Your task to perform on an android device: Go to notification settings Image 0: 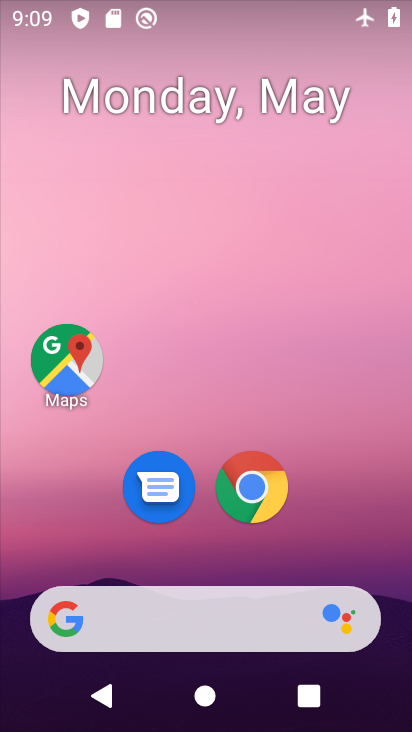
Step 0: drag from (307, 569) to (321, 243)
Your task to perform on an android device: Go to notification settings Image 1: 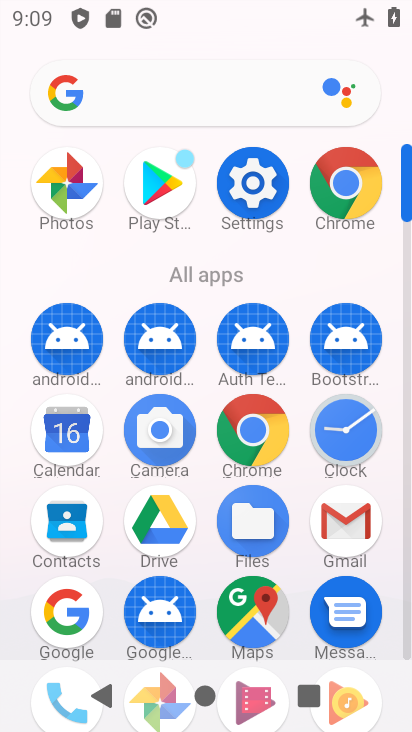
Step 1: click (262, 181)
Your task to perform on an android device: Go to notification settings Image 2: 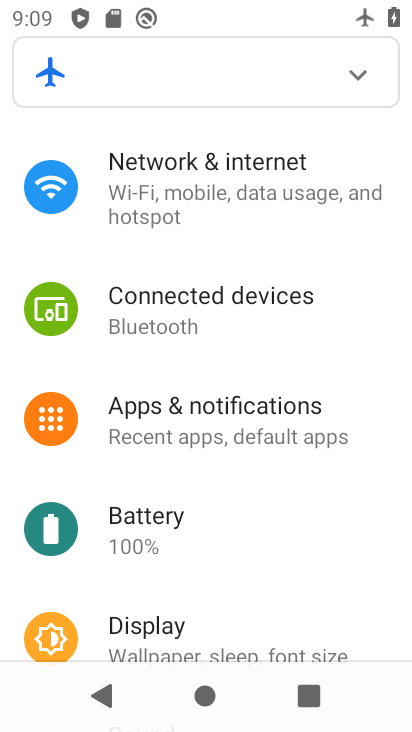
Step 2: drag from (220, 527) to (255, 542)
Your task to perform on an android device: Go to notification settings Image 3: 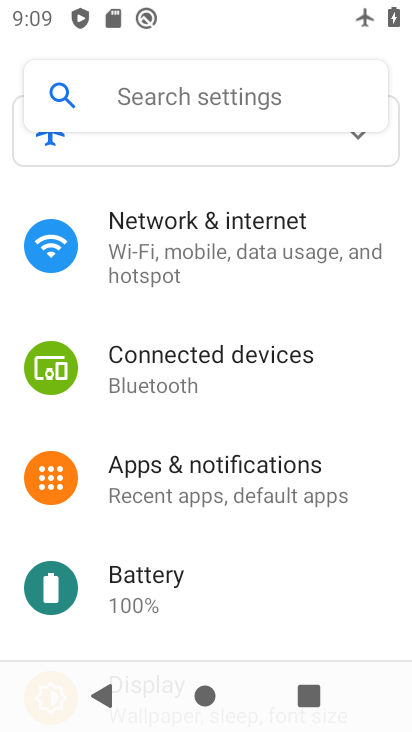
Step 3: click (213, 223)
Your task to perform on an android device: Go to notification settings Image 4: 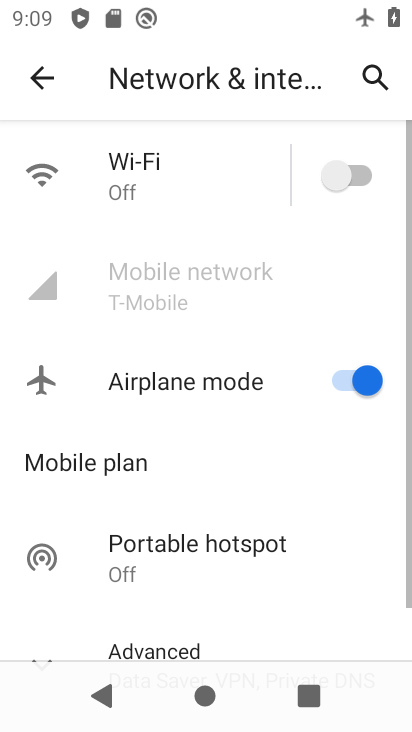
Step 4: drag from (210, 547) to (255, 231)
Your task to perform on an android device: Go to notification settings Image 5: 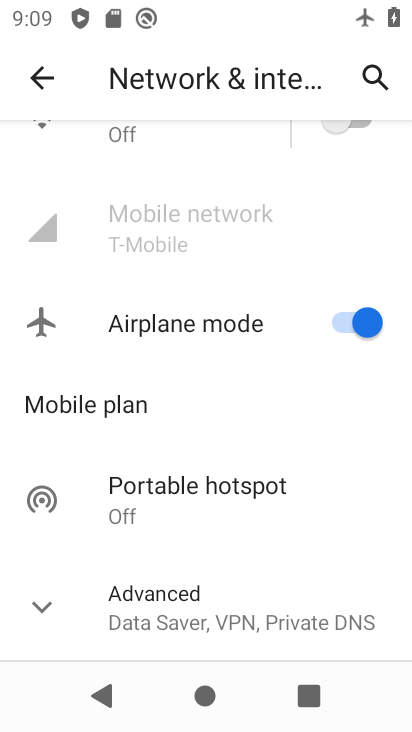
Step 5: drag from (158, 262) to (146, 544)
Your task to perform on an android device: Go to notification settings Image 6: 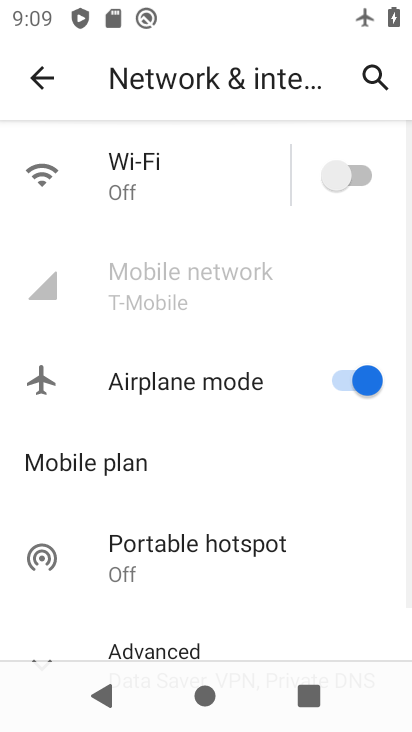
Step 6: drag from (145, 441) to (186, 188)
Your task to perform on an android device: Go to notification settings Image 7: 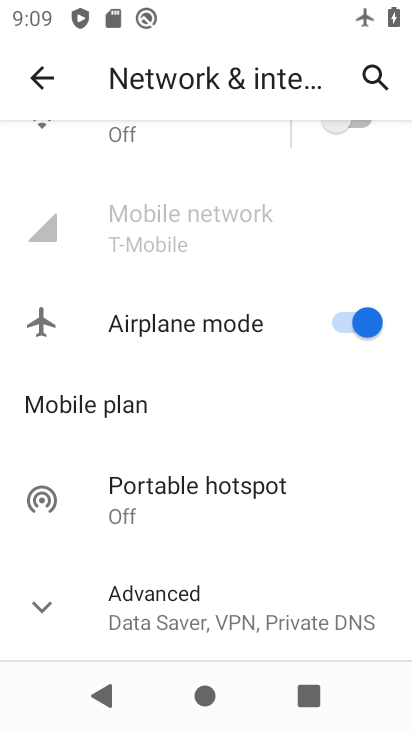
Step 7: click (38, 77)
Your task to perform on an android device: Go to notification settings Image 8: 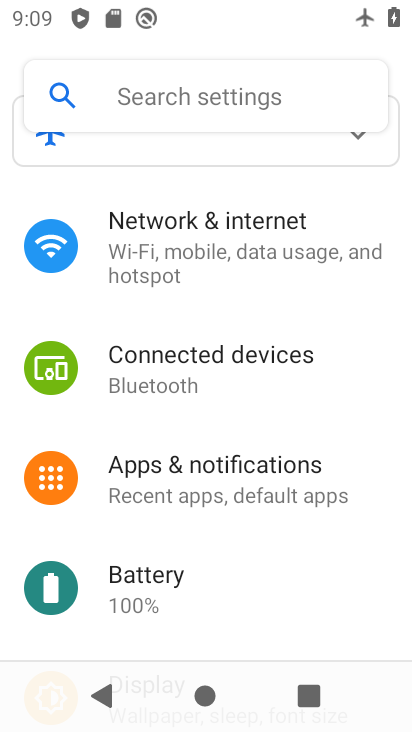
Step 8: click (191, 490)
Your task to perform on an android device: Go to notification settings Image 9: 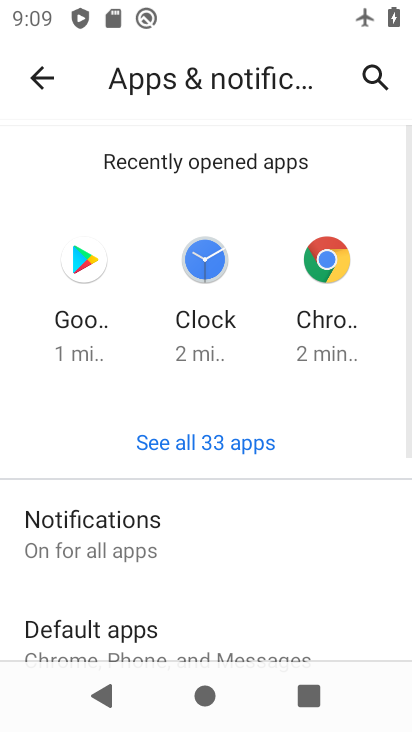
Step 9: drag from (263, 517) to (318, 168)
Your task to perform on an android device: Go to notification settings Image 10: 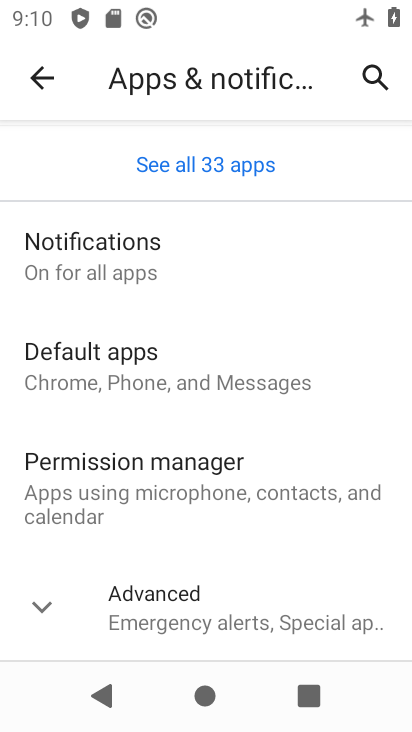
Step 10: click (159, 271)
Your task to perform on an android device: Go to notification settings Image 11: 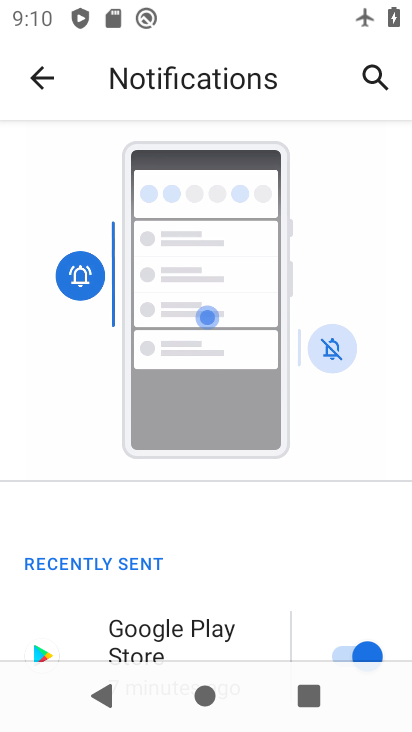
Step 11: task complete